Your task to perform on an android device: turn off data saver in the chrome app Image 0: 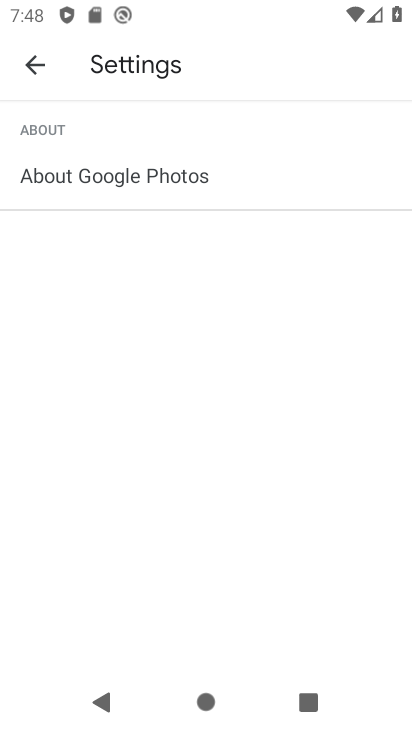
Step 0: press home button
Your task to perform on an android device: turn off data saver in the chrome app Image 1: 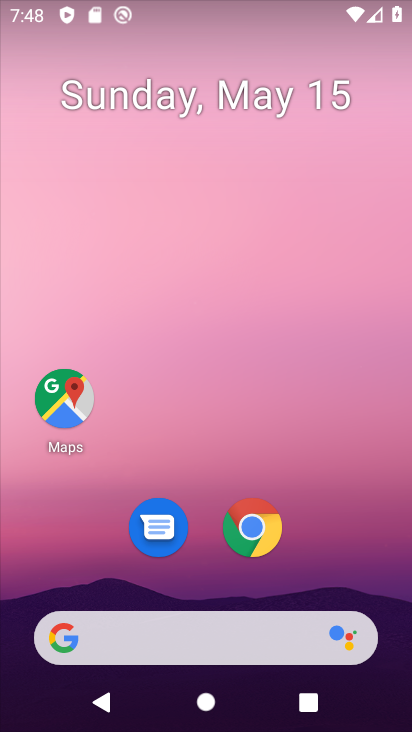
Step 1: drag from (208, 589) to (168, 189)
Your task to perform on an android device: turn off data saver in the chrome app Image 2: 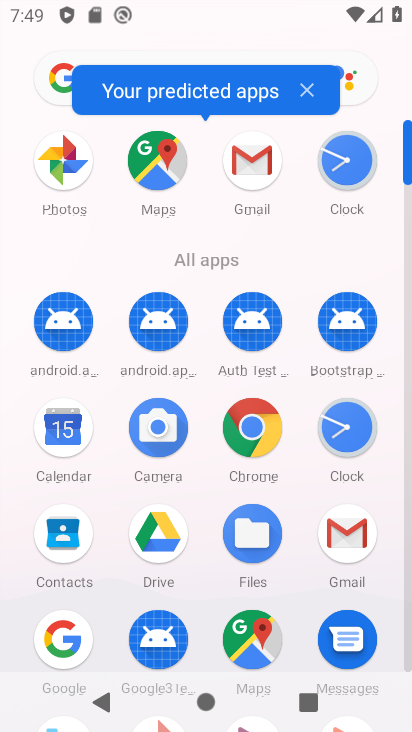
Step 2: drag from (211, 502) to (221, 235)
Your task to perform on an android device: turn off data saver in the chrome app Image 3: 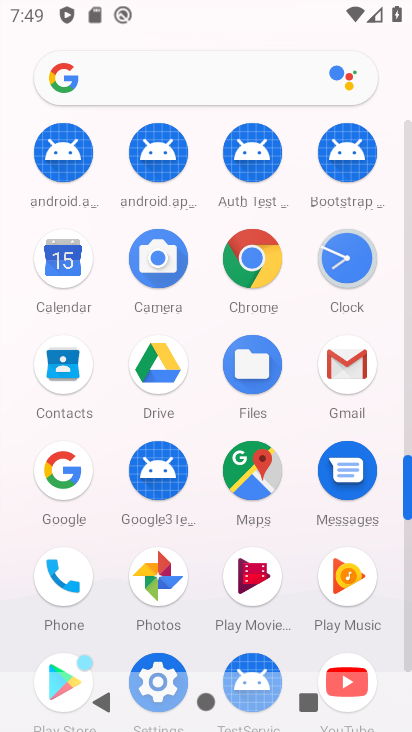
Step 3: click (150, 655)
Your task to perform on an android device: turn off data saver in the chrome app Image 4: 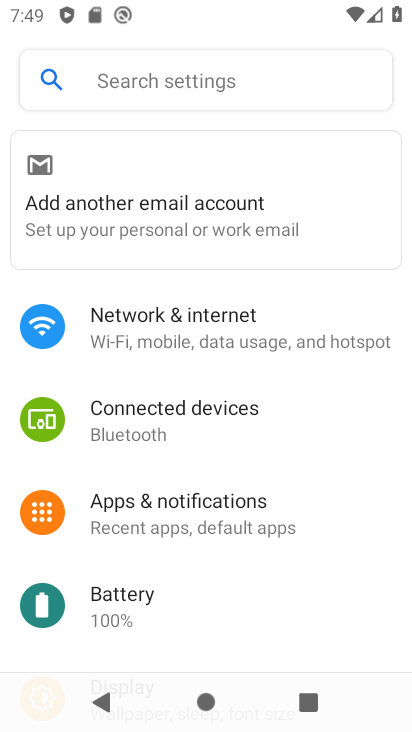
Step 4: press home button
Your task to perform on an android device: turn off data saver in the chrome app Image 5: 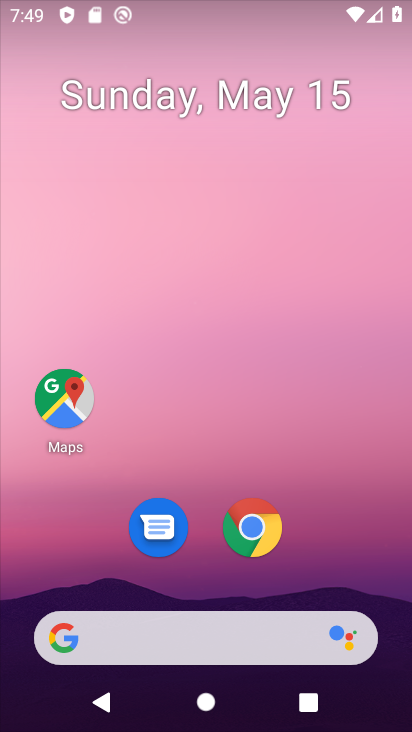
Step 5: click (238, 508)
Your task to perform on an android device: turn off data saver in the chrome app Image 6: 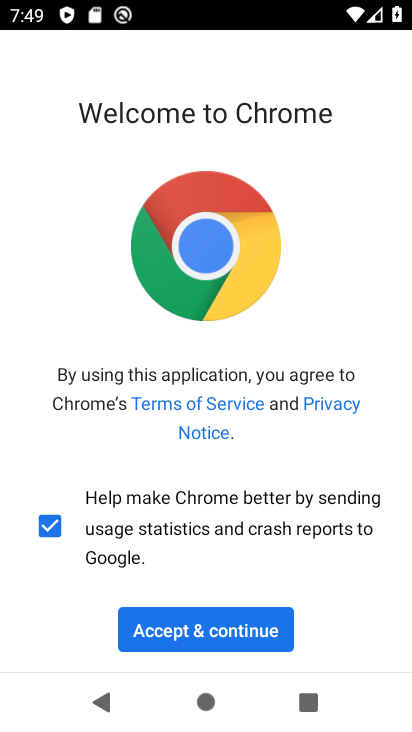
Step 6: click (201, 619)
Your task to perform on an android device: turn off data saver in the chrome app Image 7: 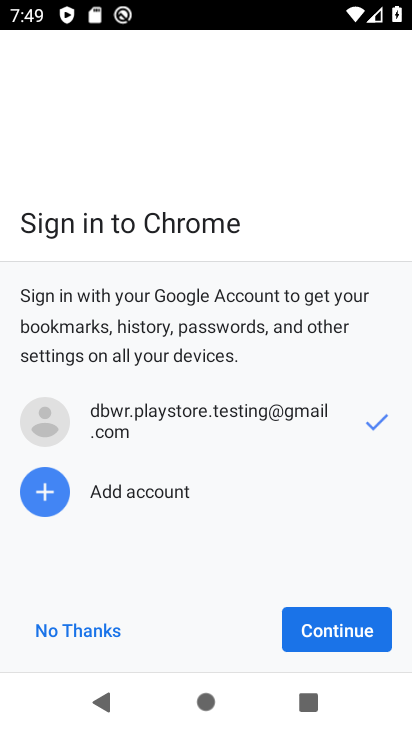
Step 7: click (304, 613)
Your task to perform on an android device: turn off data saver in the chrome app Image 8: 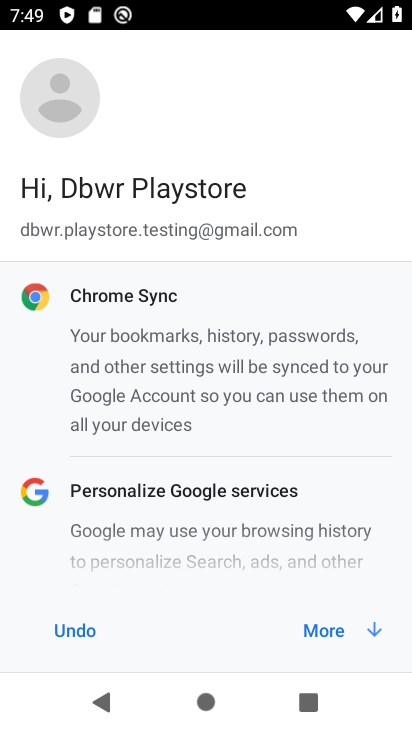
Step 8: click (264, 610)
Your task to perform on an android device: turn off data saver in the chrome app Image 9: 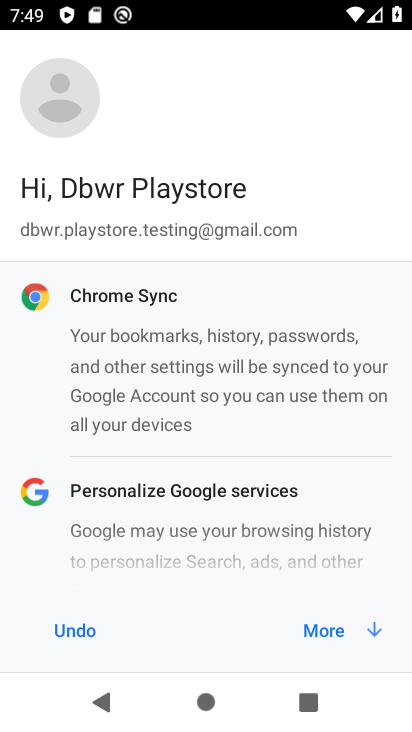
Step 9: click (328, 633)
Your task to perform on an android device: turn off data saver in the chrome app Image 10: 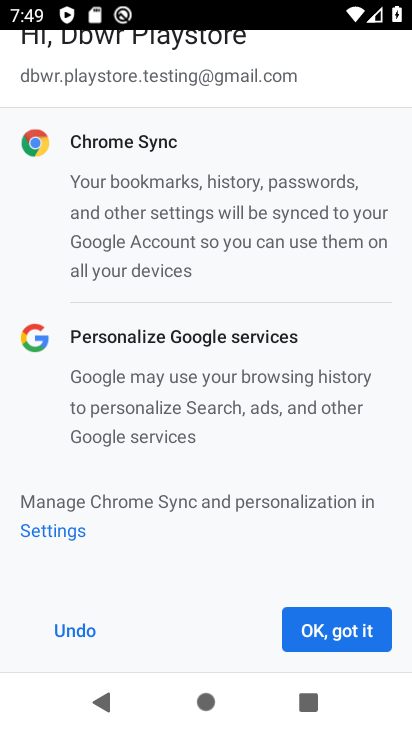
Step 10: click (334, 623)
Your task to perform on an android device: turn off data saver in the chrome app Image 11: 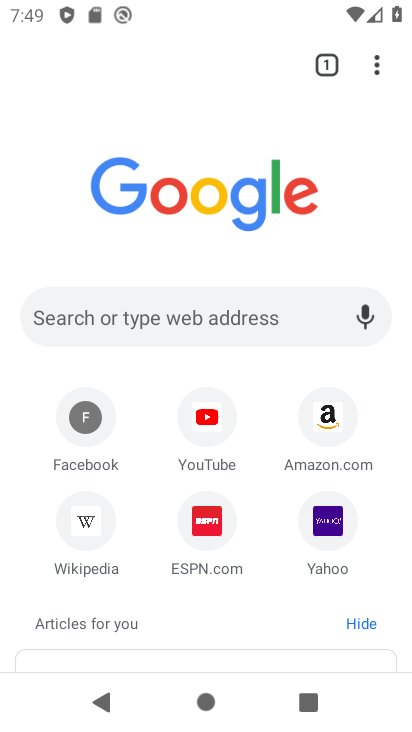
Step 11: drag from (374, 78) to (137, 534)
Your task to perform on an android device: turn off data saver in the chrome app Image 12: 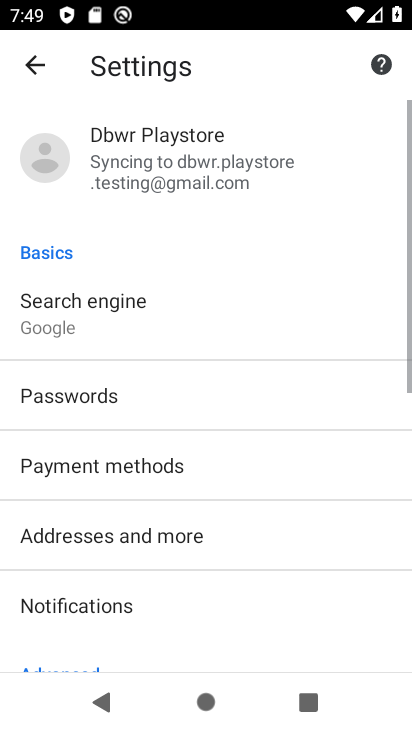
Step 12: drag from (198, 611) to (157, 293)
Your task to perform on an android device: turn off data saver in the chrome app Image 13: 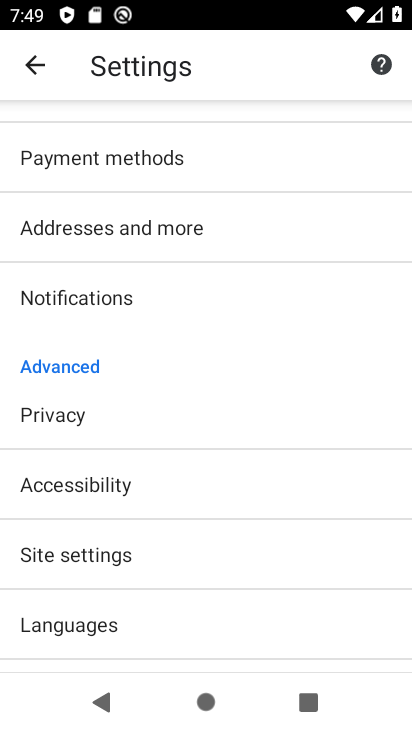
Step 13: drag from (152, 621) to (140, 396)
Your task to perform on an android device: turn off data saver in the chrome app Image 14: 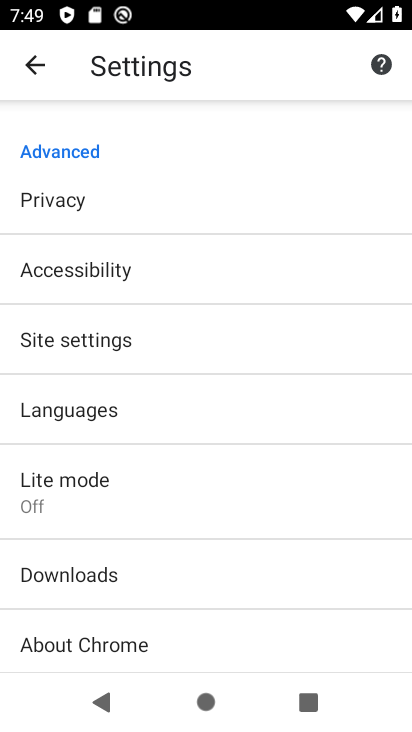
Step 14: click (113, 460)
Your task to perform on an android device: turn off data saver in the chrome app Image 15: 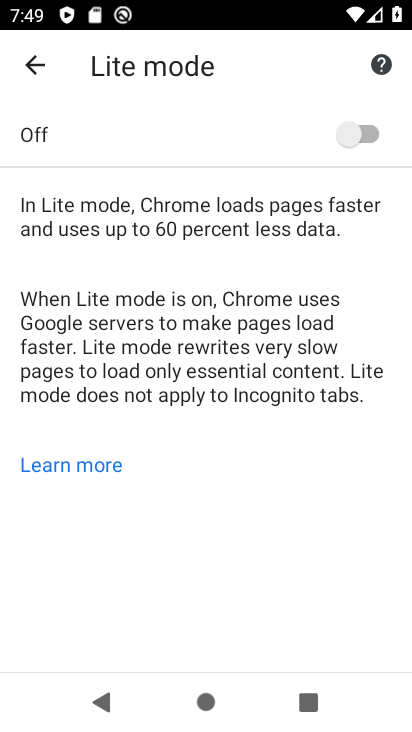
Step 15: task complete